Your task to perform on an android device: set the stopwatch Image 0: 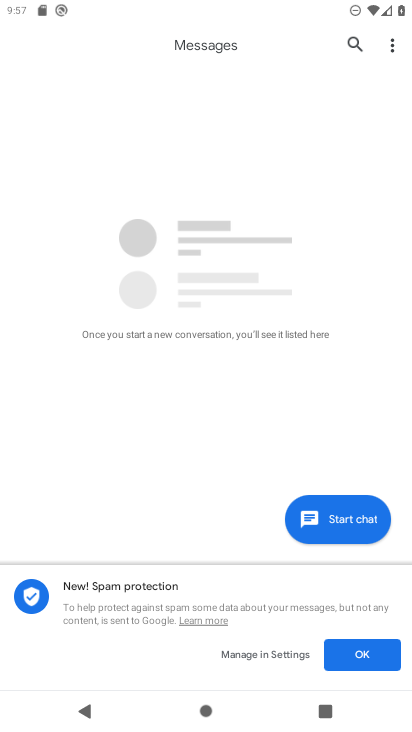
Step 0: press home button
Your task to perform on an android device: set the stopwatch Image 1: 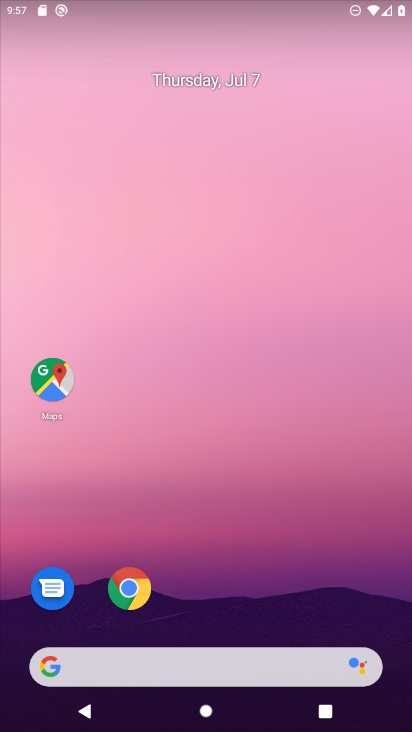
Step 1: drag from (190, 607) to (233, 24)
Your task to perform on an android device: set the stopwatch Image 2: 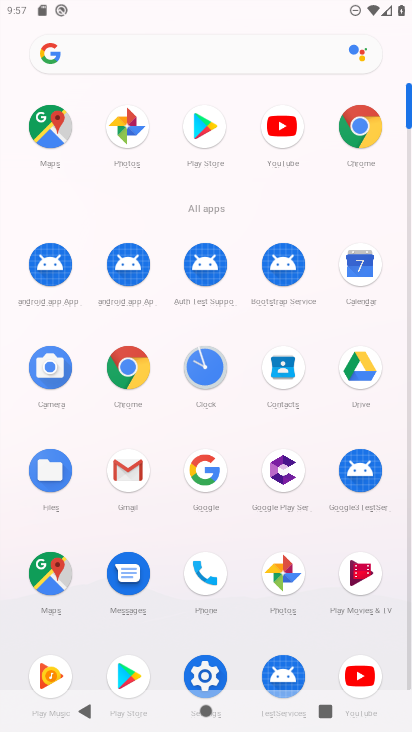
Step 2: click (199, 411)
Your task to perform on an android device: set the stopwatch Image 3: 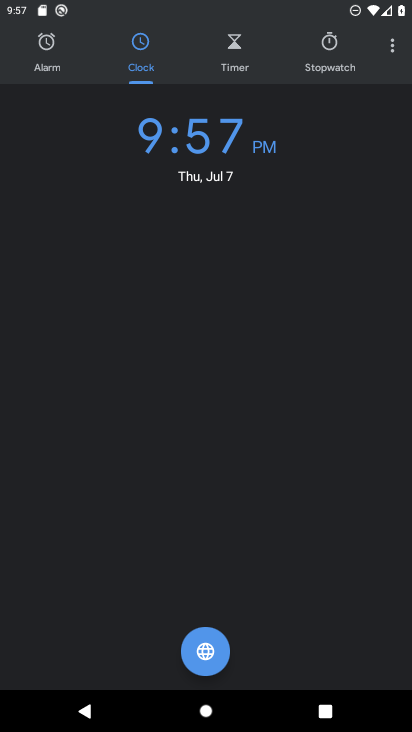
Step 3: click (346, 58)
Your task to perform on an android device: set the stopwatch Image 4: 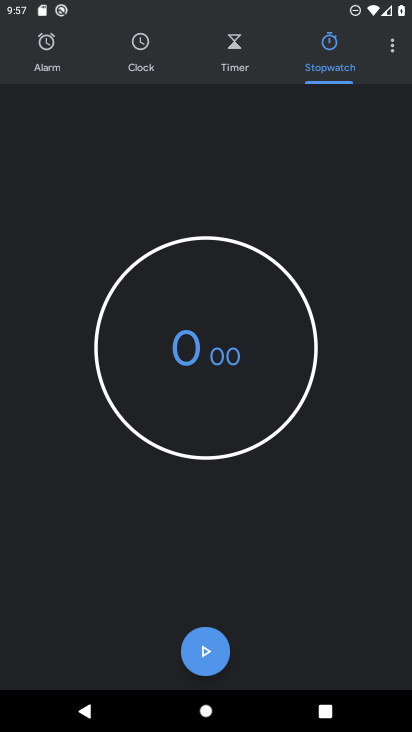
Step 4: click (205, 630)
Your task to perform on an android device: set the stopwatch Image 5: 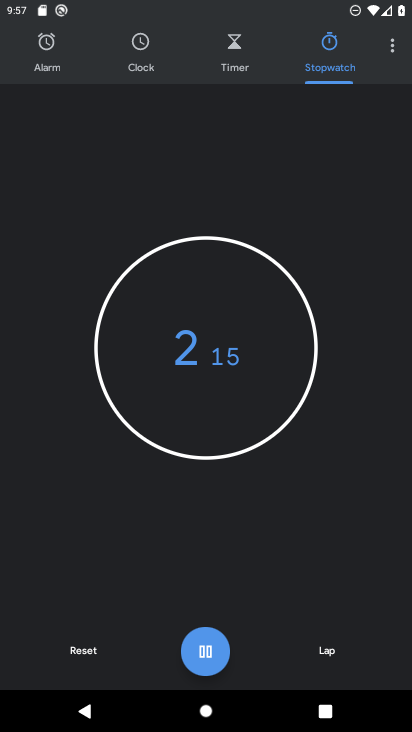
Step 5: task complete